Your task to perform on an android device: When is my next appointment? Image 0: 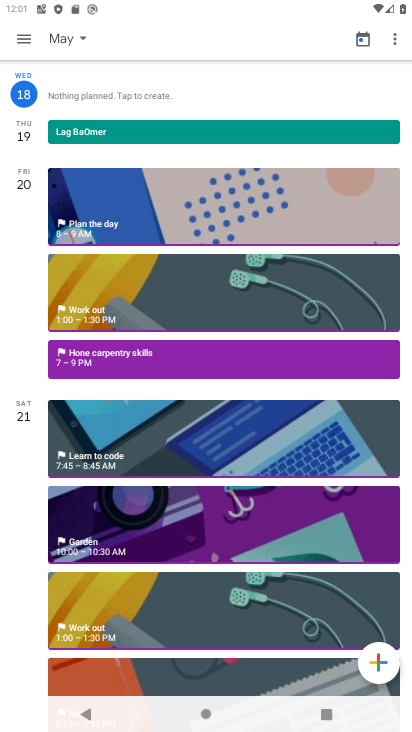
Step 0: drag from (182, 630) to (161, 70)
Your task to perform on an android device: When is my next appointment? Image 1: 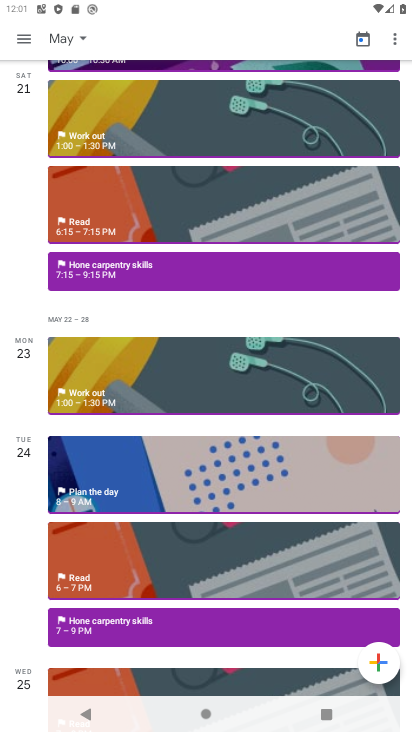
Step 1: click (26, 44)
Your task to perform on an android device: When is my next appointment? Image 2: 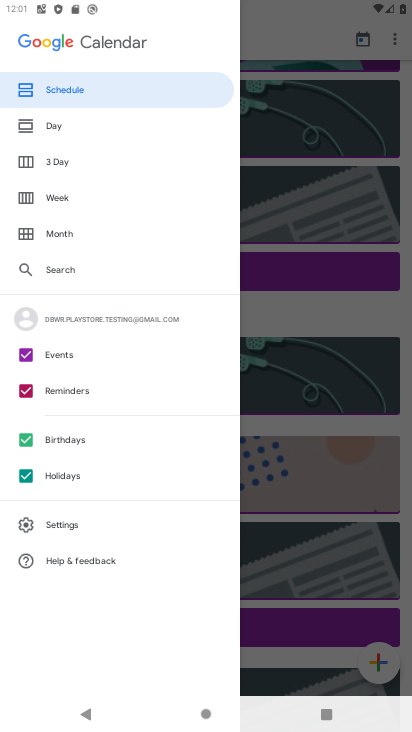
Step 2: click (108, 89)
Your task to perform on an android device: When is my next appointment? Image 3: 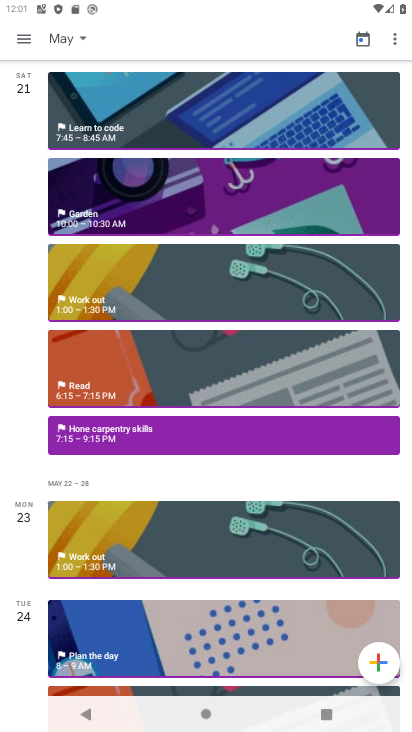
Step 3: task complete